Your task to perform on an android device: Search for pizza restaurants on Maps Image 0: 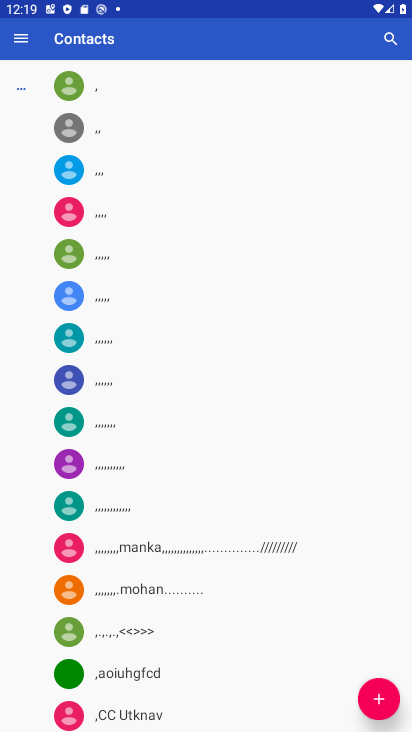
Step 0: press home button
Your task to perform on an android device: Search for pizza restaurants on Maps Image 1: 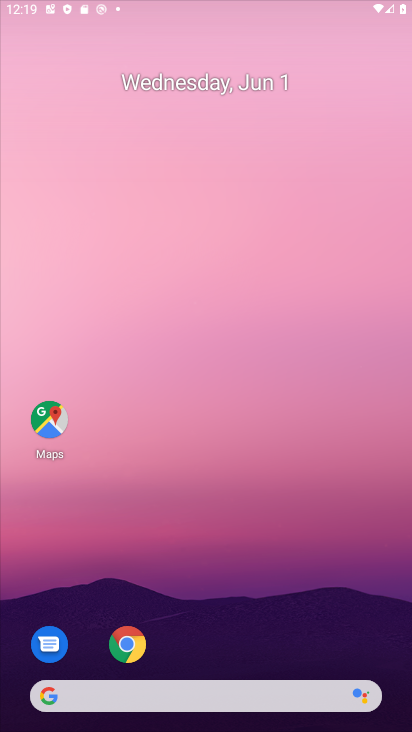
Step 1: drag from (322, 631) to (291, 229)
Your task to perform on an android device: Search for pizza restaurants on Maps Image 2: 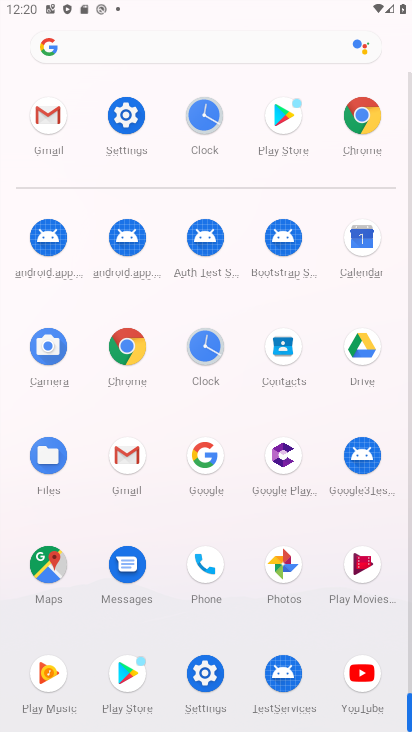
Step 2: click (41, 580)
Your task to perform on an android device: Search for pizza restaurants on Maps Image 3: 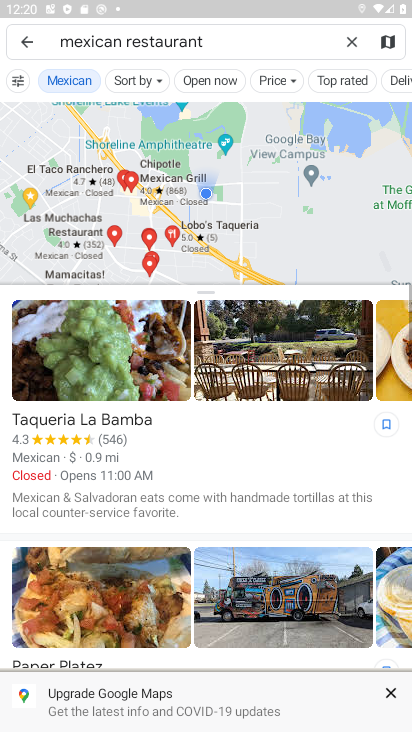
Step 3: click (348, 41)
Your task to perform on an android device: Search for pizza restaurants on Maps Image 4: 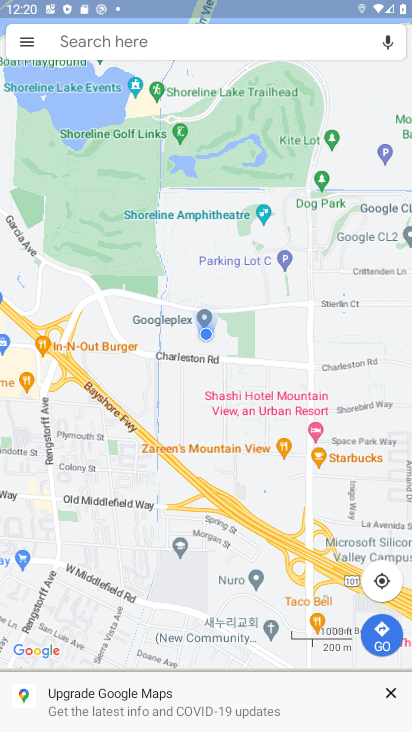
Step 4: click (216, 45)
Your task to perform on an android device: Search for pizza restaurants on Maps Image 5: 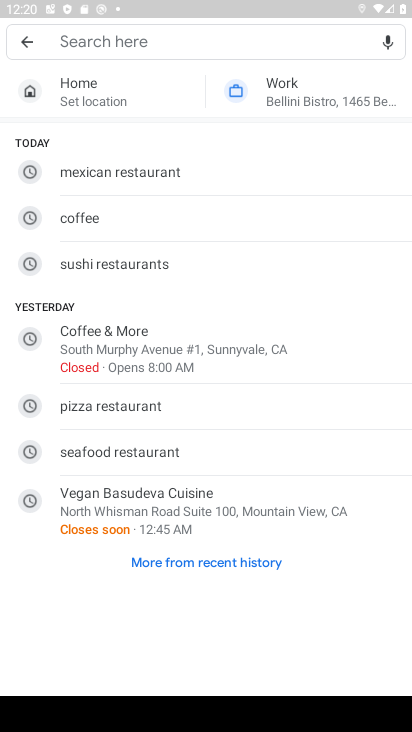
Step 5: click (220, 411)
Your task to perform on an android device: Search for pizza restaurants on Maps Image 6: 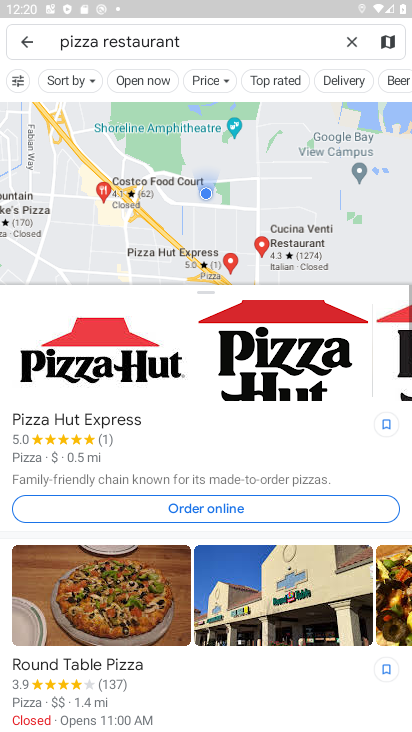
Step 6: task complete